Your task to perform on an android device: What's on my calendar today? Image 0: 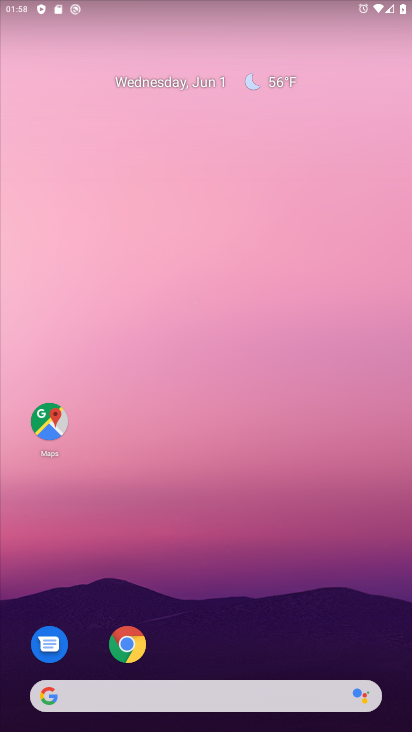
Step 0: drag from (225, 469) to (224, 199)
Your task to perform on an android device: What's on my calendar today? Image 1: 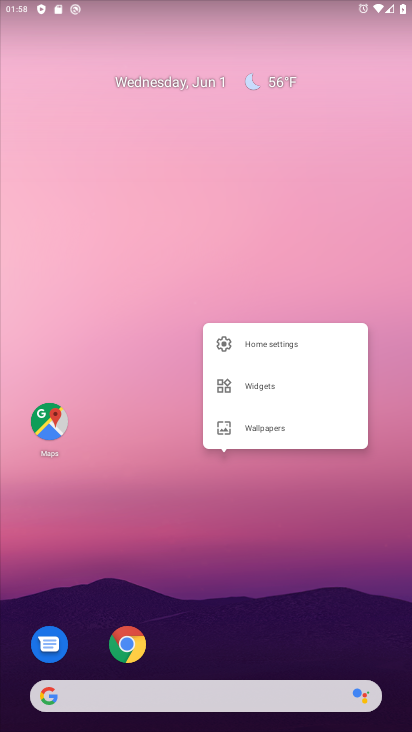
Step 1: drag from (196, 677) to (193, 267)
Your task to perform on an android device: What's on my calendar today? Image 2: 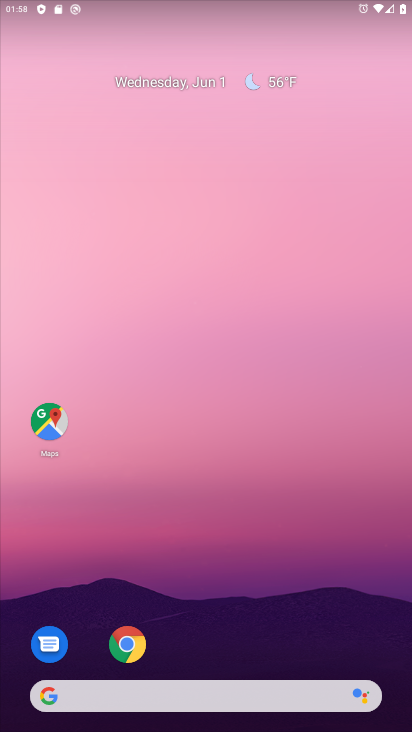
Step 2: drag from (215, 640) to (215, 203)
Your task to perform on an android device: What's on my calendar today? Image 3: 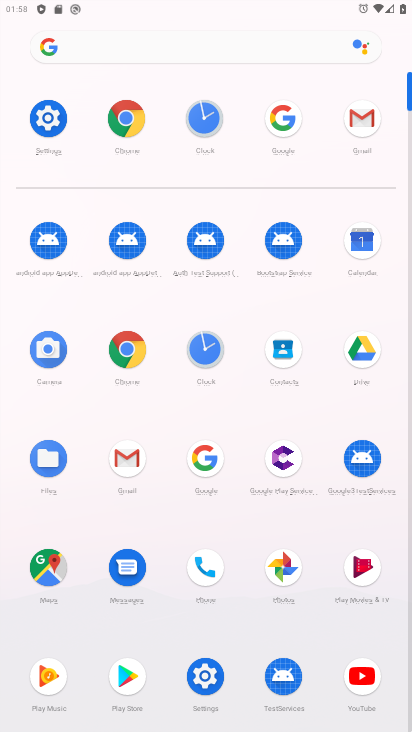
Step 3: click (363, 246)
Your task to perform on an android device: What's on my calendar today? Image 4: 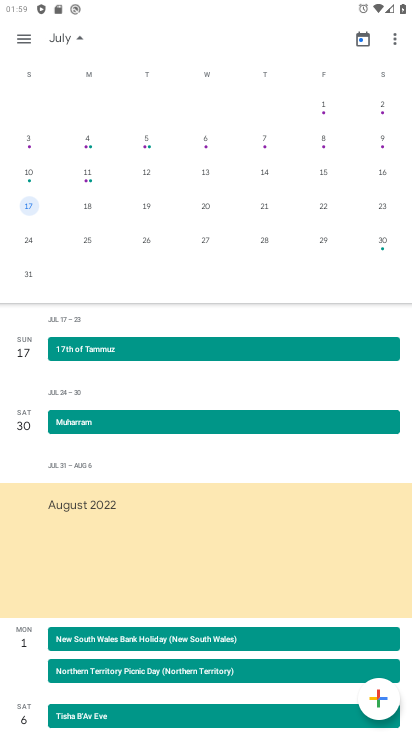
Step 4: drag from (150, 186) to (389, 219)
Your task to perform on an android device: What's on my calendar today? Image 5: 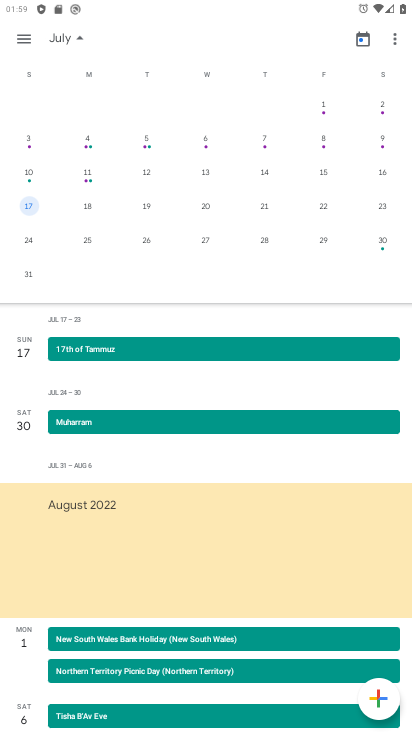
Step 5: click (323, 97)
Your task to perform on an android device: What's on my calendar today? Image 6: 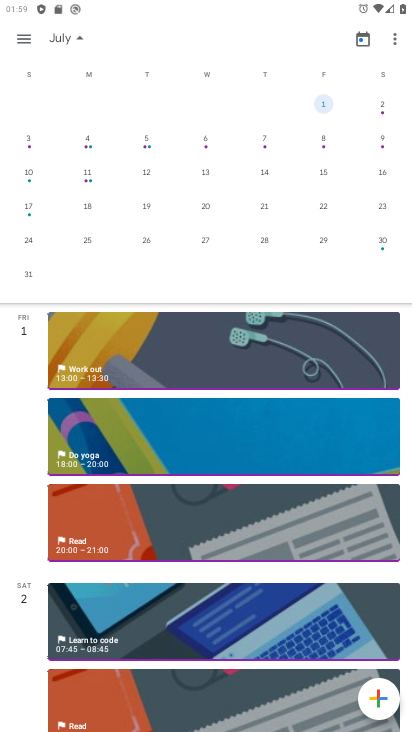
Step 6: drag from (83, 156) to (401, 171)
Your task to perform on an android device: What's on my calendar today? Image 7: 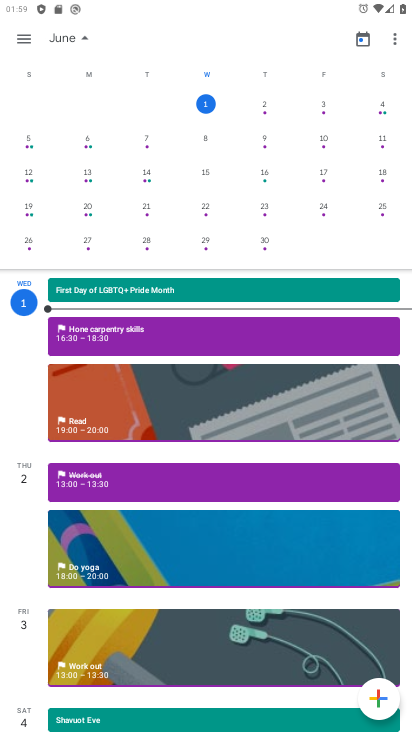
Step 7: click (78, 117)
Your task to perform on an android device: What's on my calendar today? Image 8: 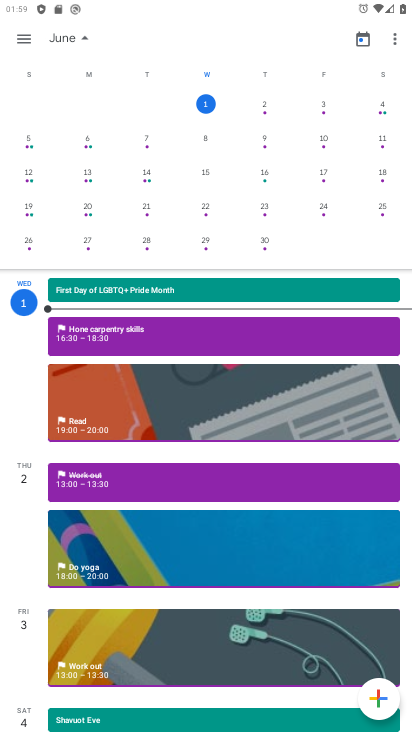
Step 8: click (202, 104)
Your task to perform on an android device: What's on my calendar today? Image 9: 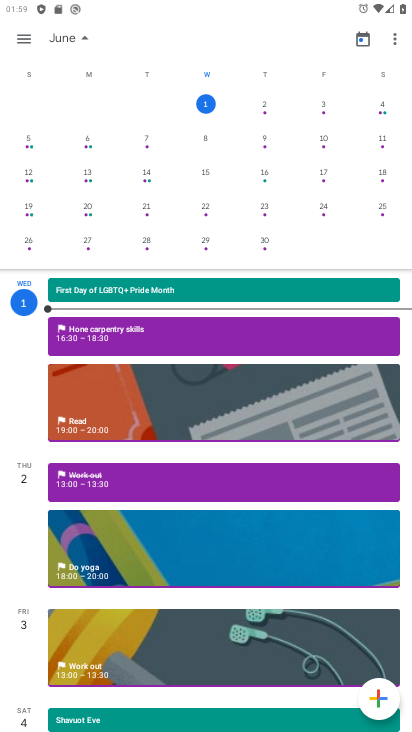
Step 9: click (98, 289)
Your task to perform on an android device: What's on my calendar today? Image 10: 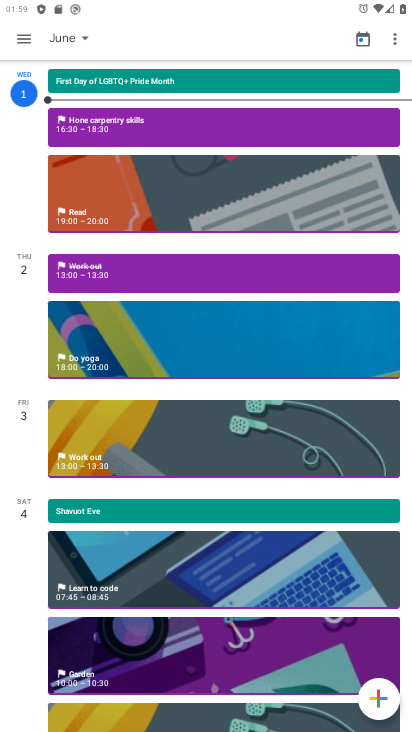
Step 10: click (109, 82)
Your task to perform on an android device: What's on my calendar today? Image 11: 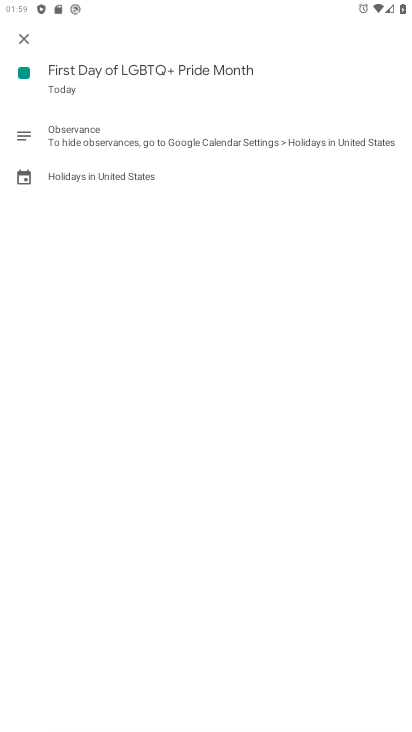
Step 11: task complete